Your task to perform on an android device: toggle pop-ups in chrome Image 0: 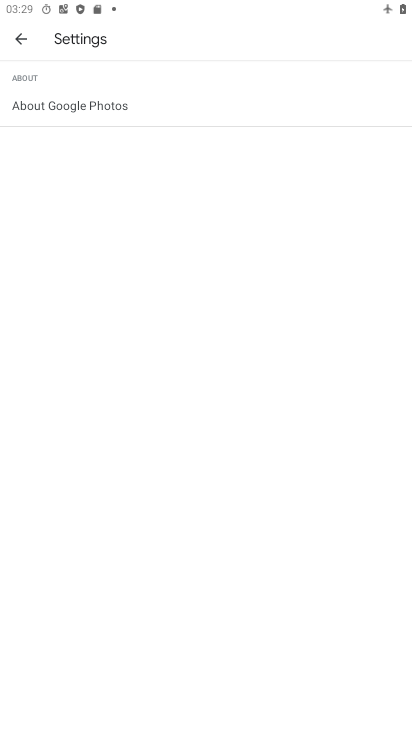
Step 0: press home button
Your task to perform on an android device: toggle pop-ups in chrome Image 1: 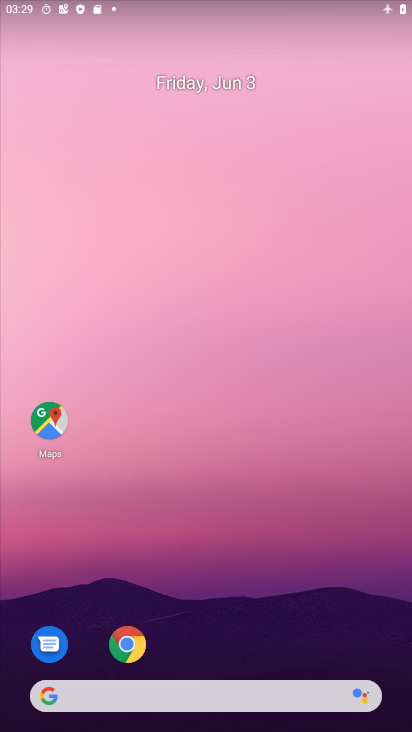
Step 1: click (136, 641)
Your task to perform on an android device: toggle pop-ups in chrome Image 2: 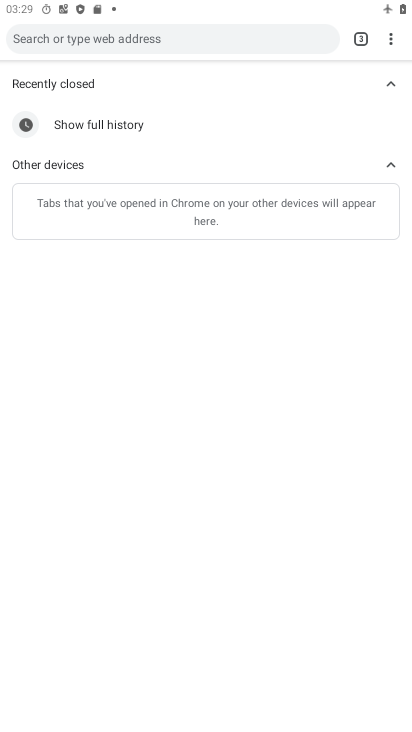
Step 2: drag from (391, 35) to (265, 315)
Your task to perform on an android device: toggle pop-ups in chrome Image 3: 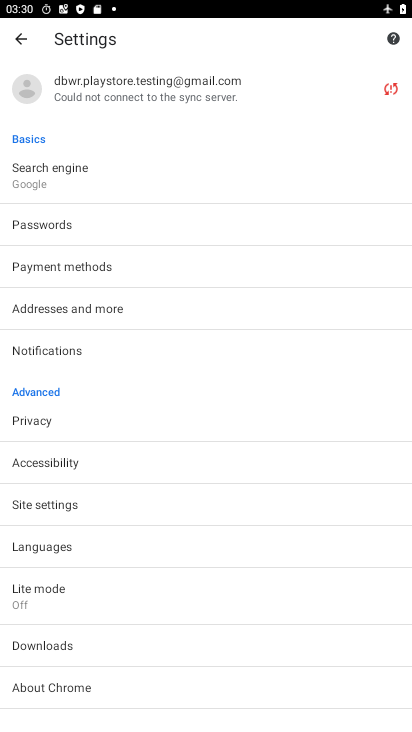
Step 3: click (48, 490)
Your task to perform on an android device: toggle pop-ups in chrome Image 4: 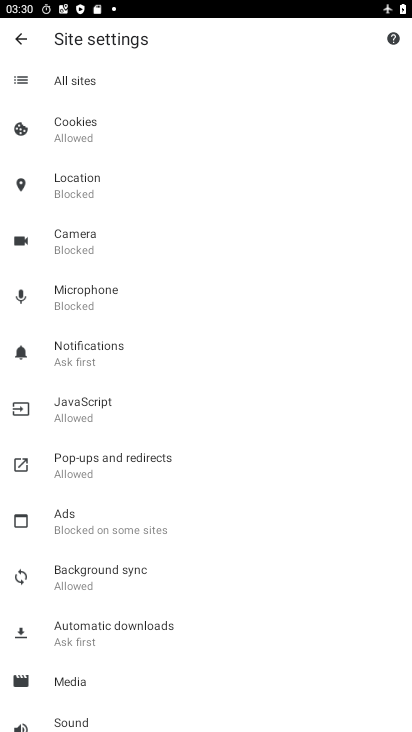
Step 4: click (117, 473)
Your task to perform on an android device: toggle pop-ups in chrome Image 5: 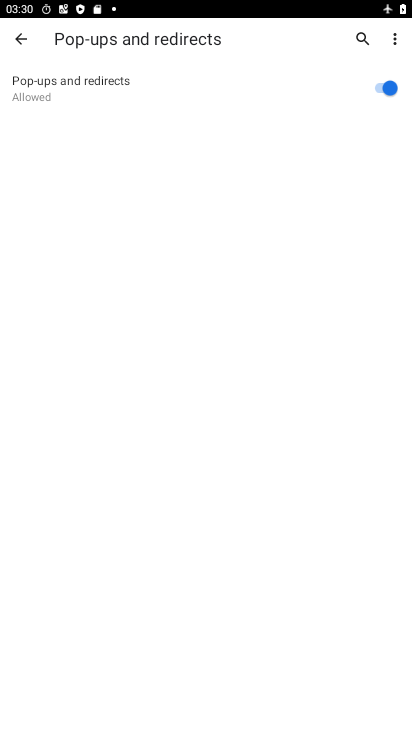
Step 5: click (374, 88)
Your task to perform on an android device: toggle pop-ups in chrome Image 6: 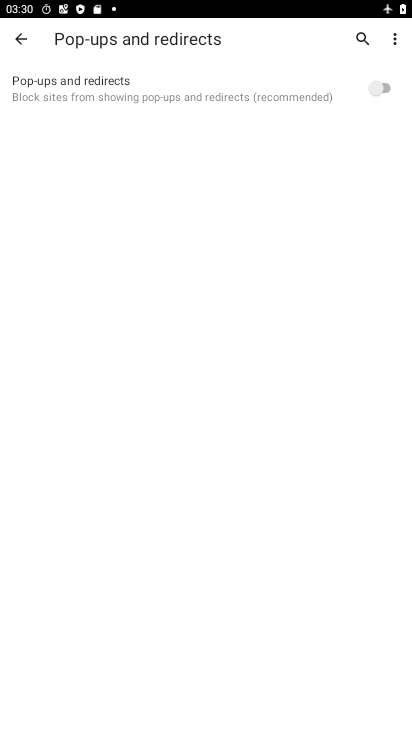
Step 6: task complete